Your task to perform on an android device: What's the weather? Image 0: 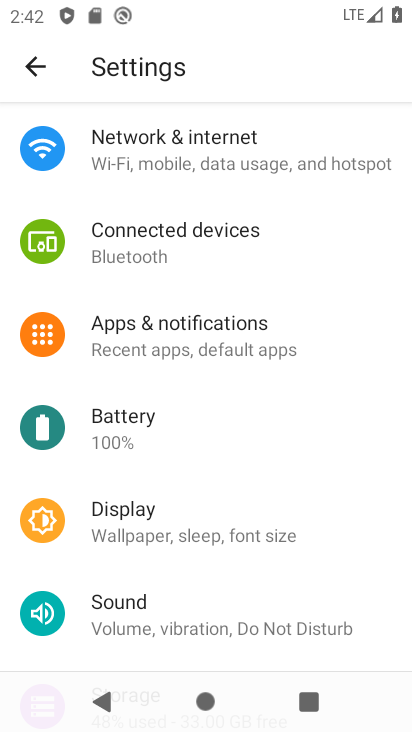
Step 0: press home button
Your task to perform on an android device: What's the weather? Image 1: 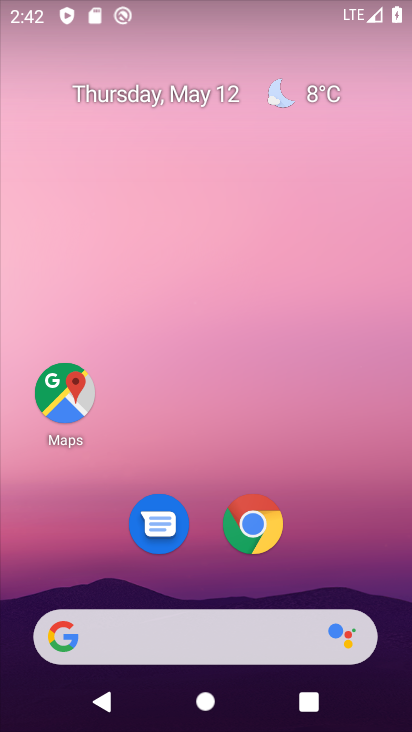
Step 1: click (301, 88)
Your task to perform on an android device: What's the weather? Image 2: 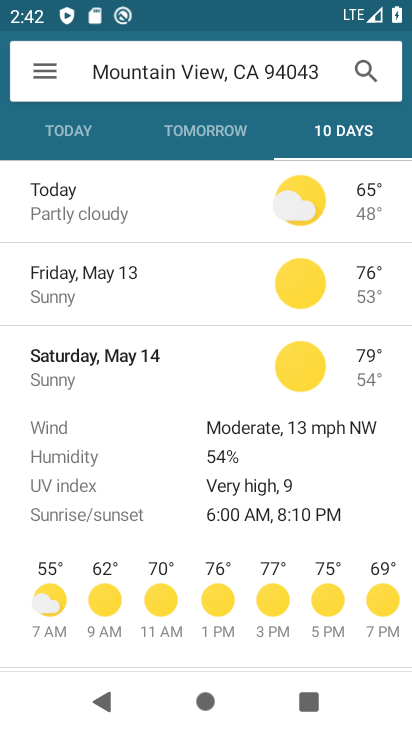
Step 2: click (82, 127)
Your task to perform on an android device: What's the weather? Image 3: 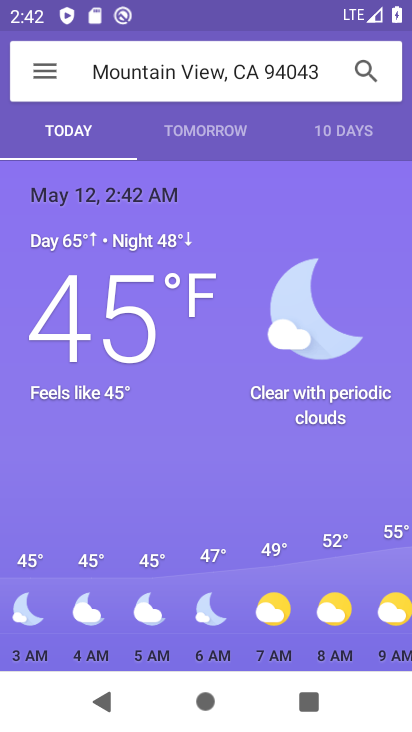
Step 3: task complete